Your task to perform on an android device: toggle notification dots Image 0: 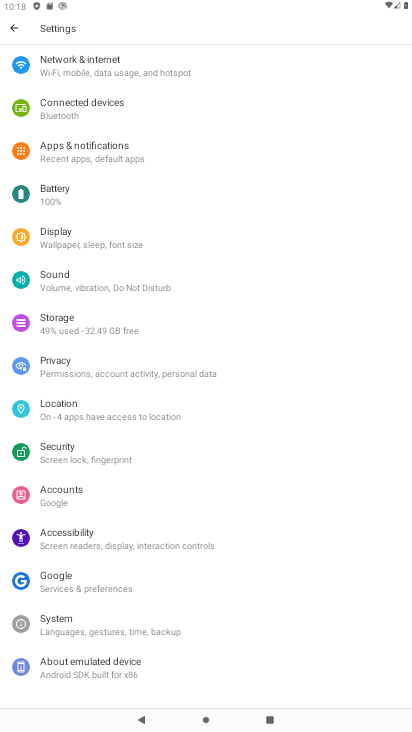
Step 0: click (63, 145)
Your task to perform on an android device: toggle notification dots Image 1: 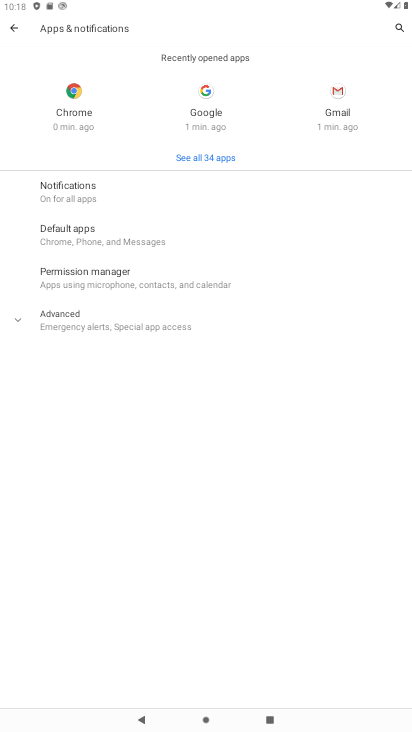
Step 1: click (60, 181)
Your task to perform on an android device: toggle notification dots Image 2: 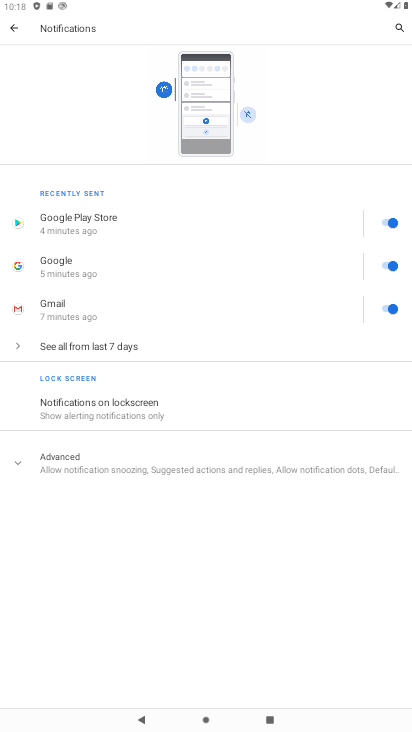
Step 2: click (18, 465)
Your task to perform on an android device: toggle notification dots Image 3: 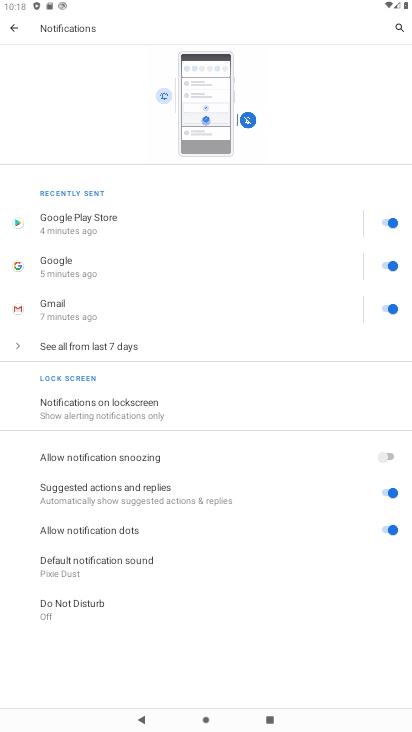
Step 3: click (384, 528)
Your task to perform on an android device: toggle notification dots Image 4: 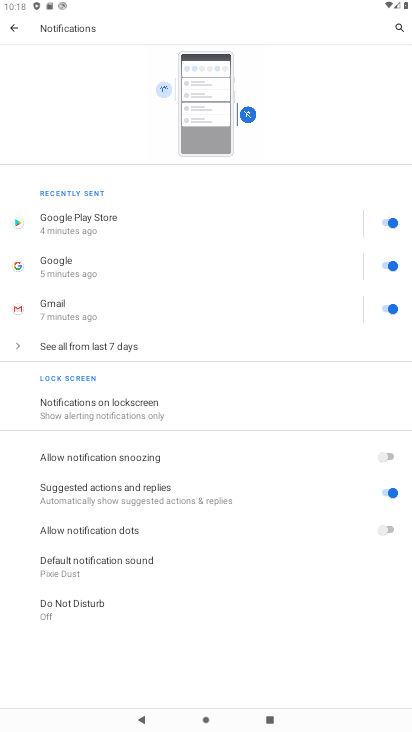
Step 4: task complete